Your task to perform on an android device: see creations saved in the google photos Image 0: 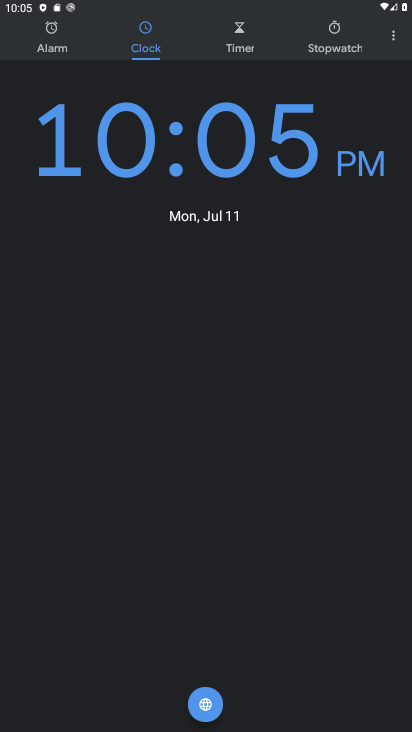
Step 0: press home button
Your task to perform on an android device: see creations saved in the google photos Image 1: 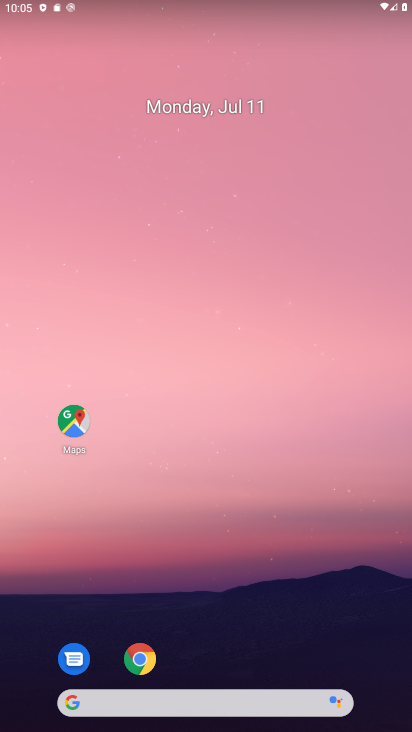
Step 1: drag from (196, 678) to (253, 239)
Your task to perform on an android device: see creations saved in the google photos Image 2: 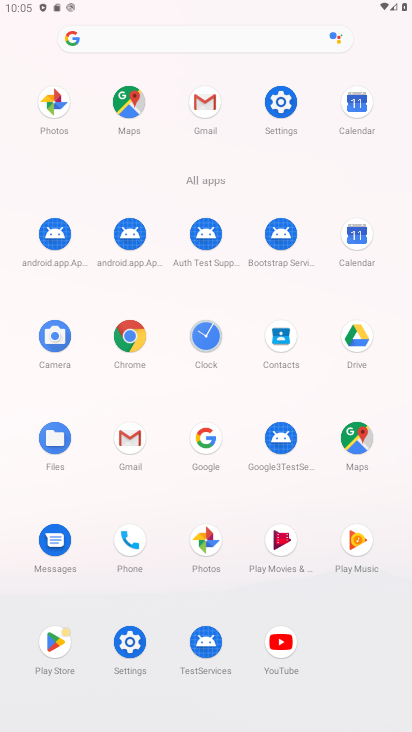
Step 2: click (197, 546)
Your task to perform on an android device: see creations saved in the google photos Image 3: 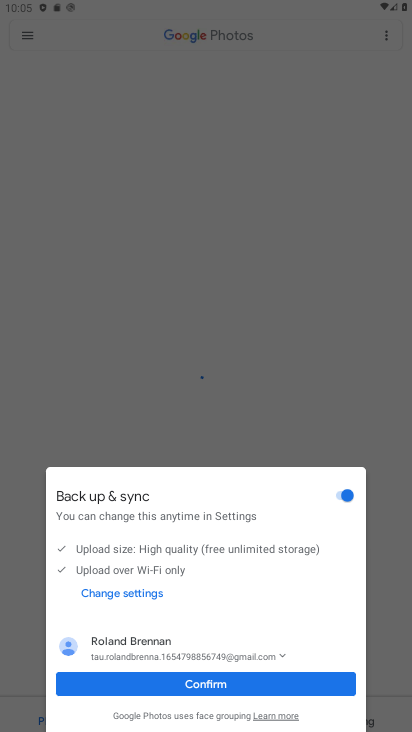
Step 3: click (211, 690)
Your task to perform on an android device: see creations saved in the google photos Image 4: 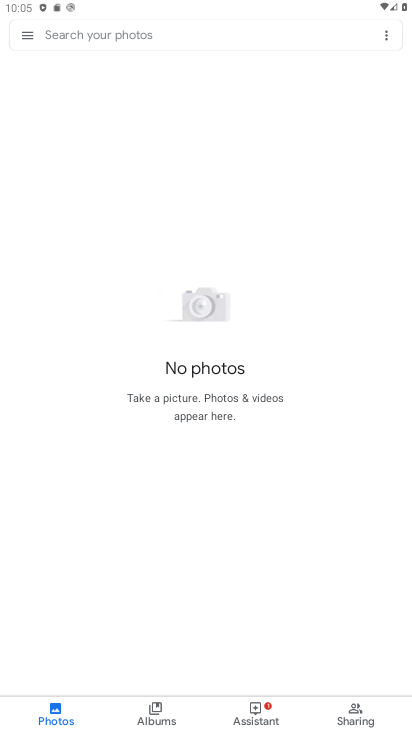
Step 4: click (144, 35)
Your task to perform on an android device: see creations saved in the google photos Image 5: 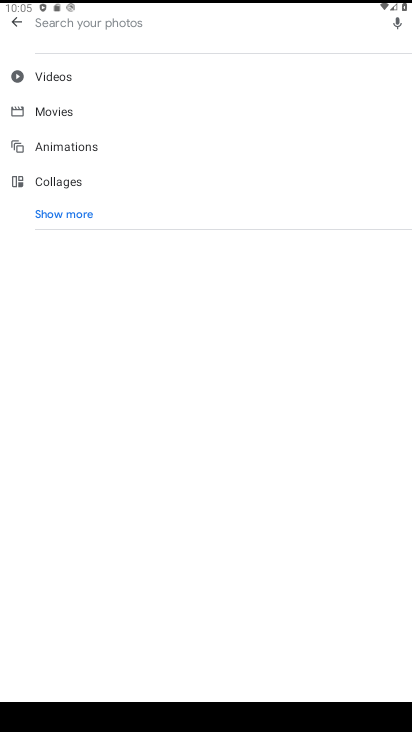
Step 5: click (45, 217)
Your task to perform on an android device: see creations saved in the google photos Image 6: 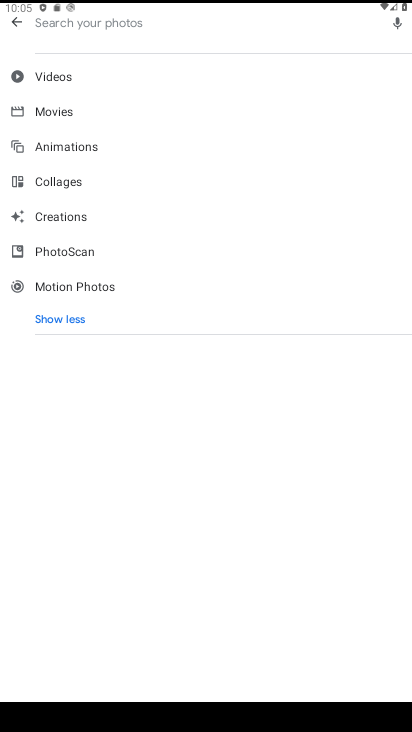
Step 6: click (65, 222)
Your task to perform on an android device: see creations saved in the google photos Image 7: 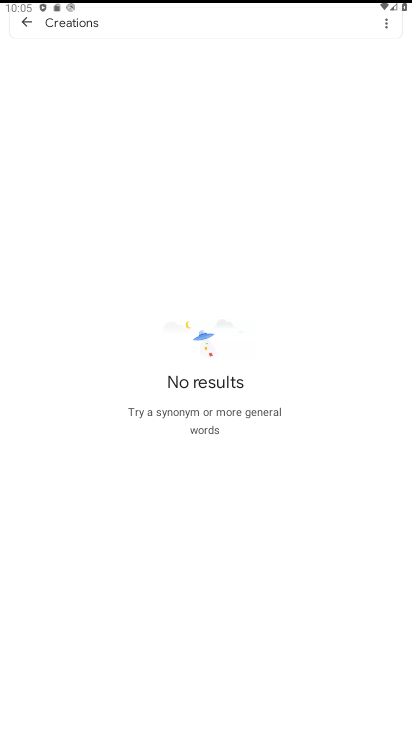
Step 7: task complete